Your task to perform on an android device: Turn on the flashlight Image 0: 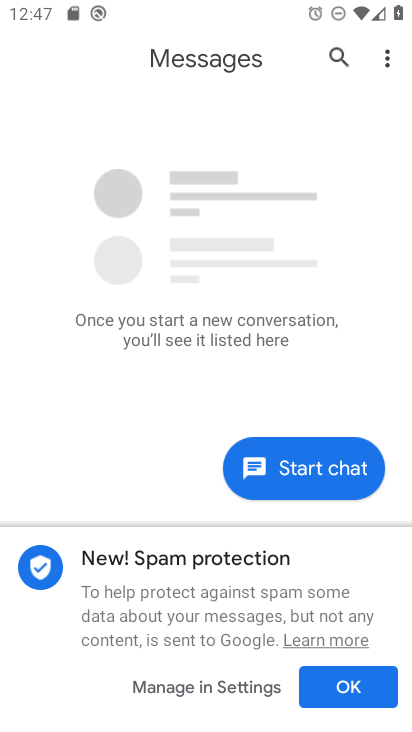
Step 0: press home button
Your task to perform on an android device: Turn on the flashlight Image 1: 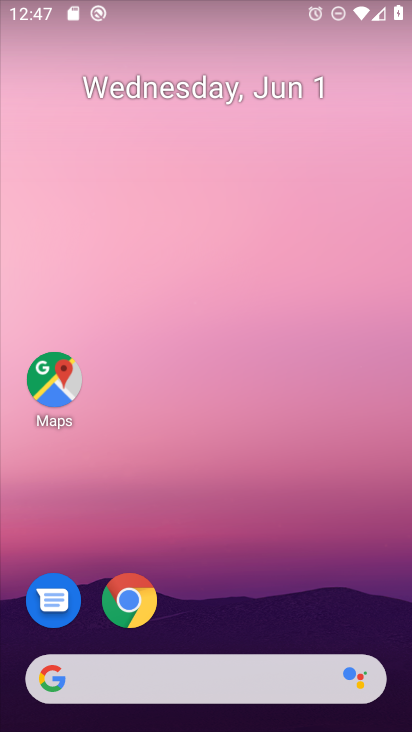
Step 1: click (51, 380)
Your task to perform on an android device: Turn on the flashlight Image 2: 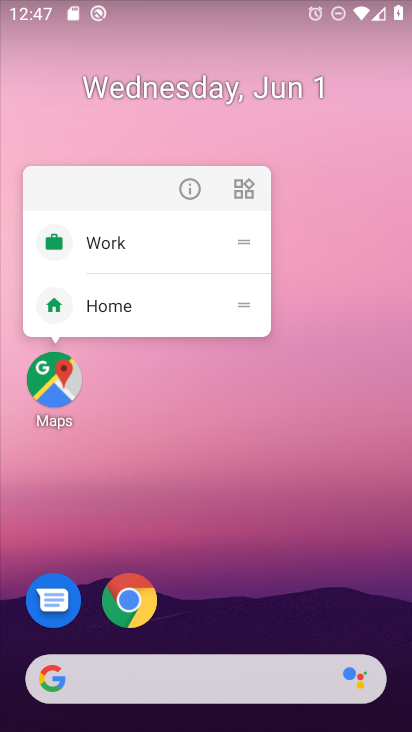
Step 2: click (238, 610)
Your task to perform on an android device: Turn on the flashlight Image 3: 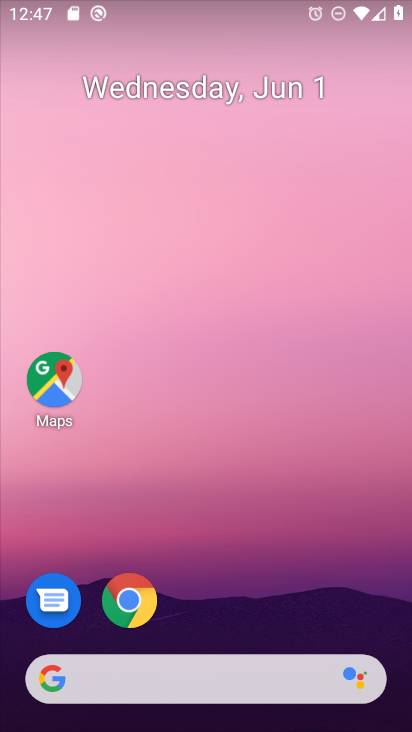
Step 3: drag from (288, 615) to (312, 96)
Your task to perform on an android device: Turn on the flashlight Image 4: 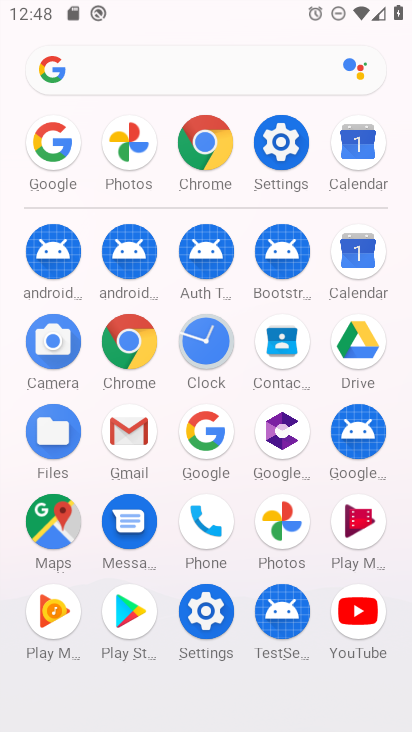
Step 4: click (282, 126)
Your task to perform on an android device: Turn on the flashlight Image 5: 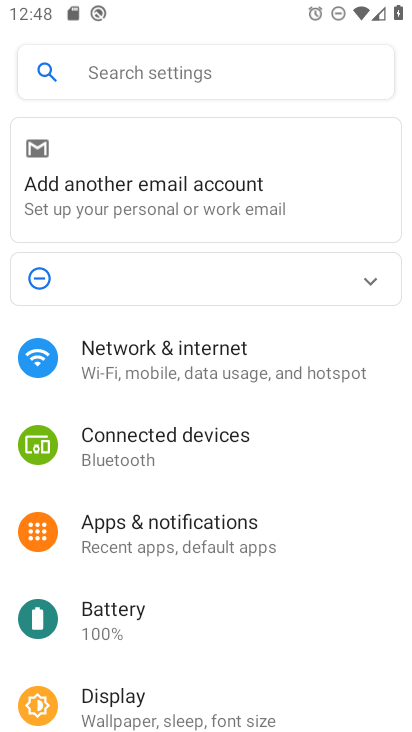
Step 5: click (150, 70)
Your task to perform on an android device: Turn on the flashlight Image 6: 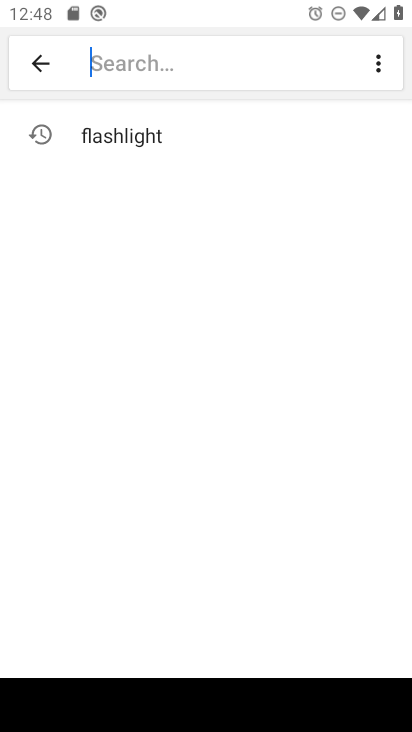
Step 6: click (180, 127)
Your task to perform on an android device: Turn on the flashlight Image 7: 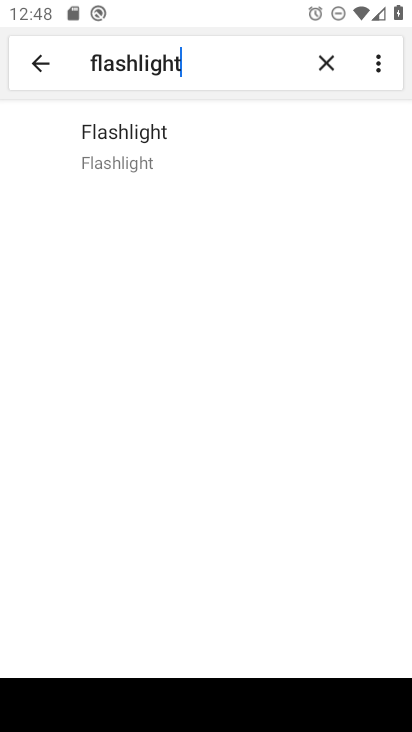
Step 7: click (163, 154)
Your task to perform on an android device: Turn on the flashlight Image 8: 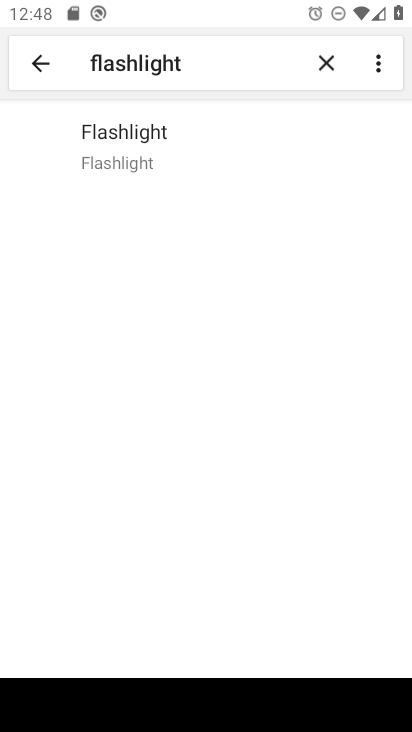
Step 8: task complete